Your task to perform on an android device: change keyboard looks Image 0: 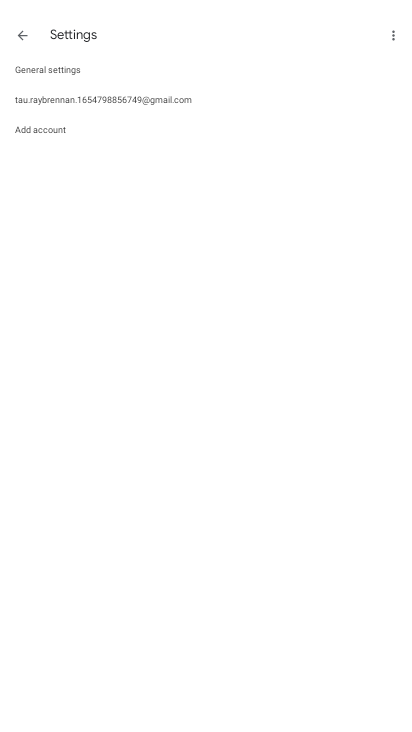
Step 0: press home button
Your task to perform on an android device: change keyboard looks Image 1: 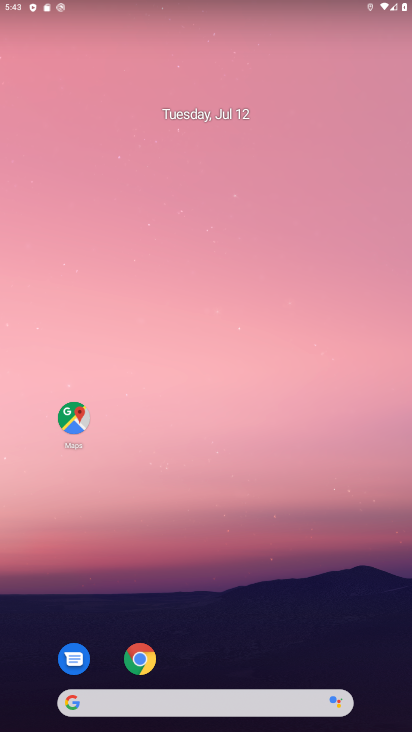
Step 1: drag from (227, 637) to (202, 6)
Your task to perform on an android device: change keyboard looks Image 2: 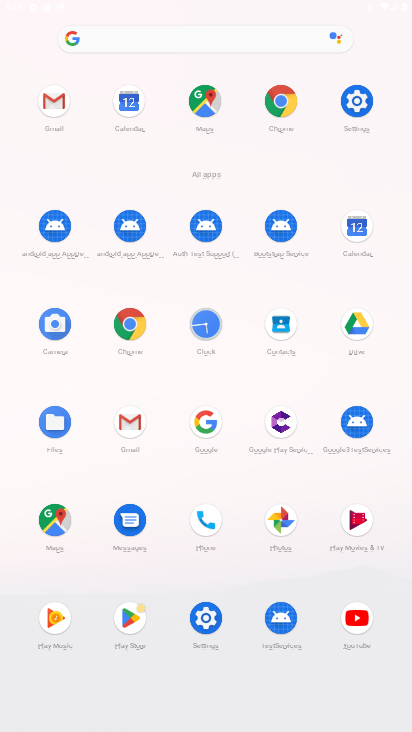
Step 2: click (203, 612)
Your task to perform on an android device: change keyboard looks Image 3: 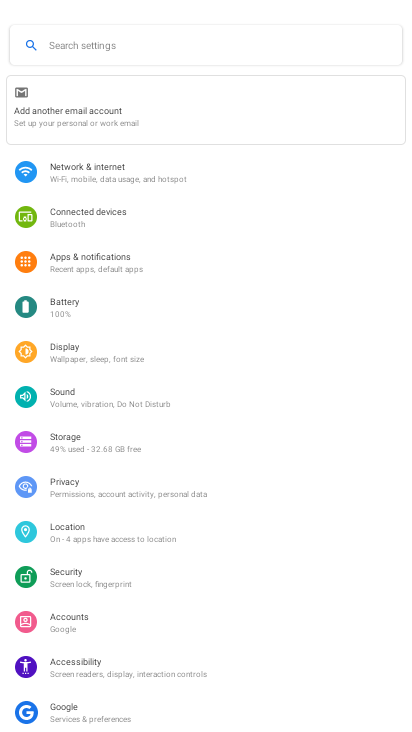
Step 3: drag from (72, 681) to (119, 317)
Your task to perform on an android device: change keyboard looks Image 4: 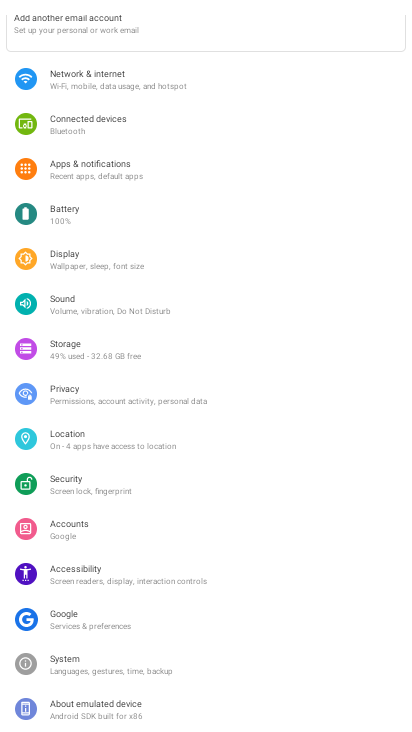
Step 4: click (80, 665)
Your task to perform on an android device: change keyboard looks Image 5: 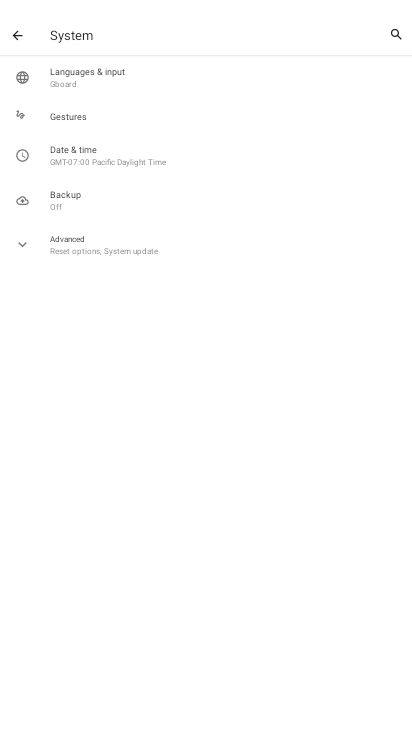
Step 5: click (94, 67)
Your task to perform on an android device: change keyboard looks Image 6: 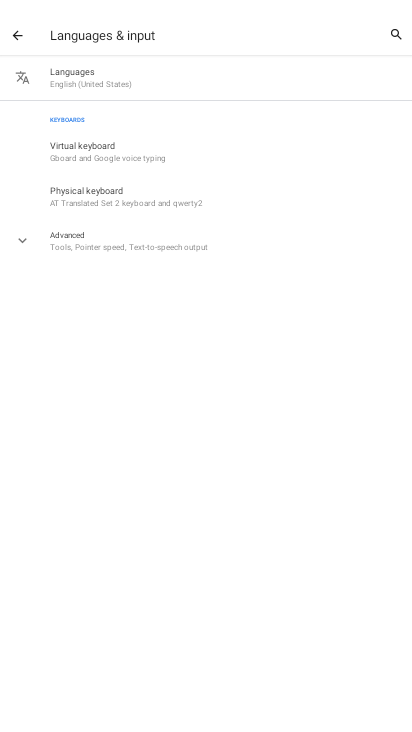
Step 6: click (95, 153)
Your task to perform on an android device: change keyboard looks Image 7: 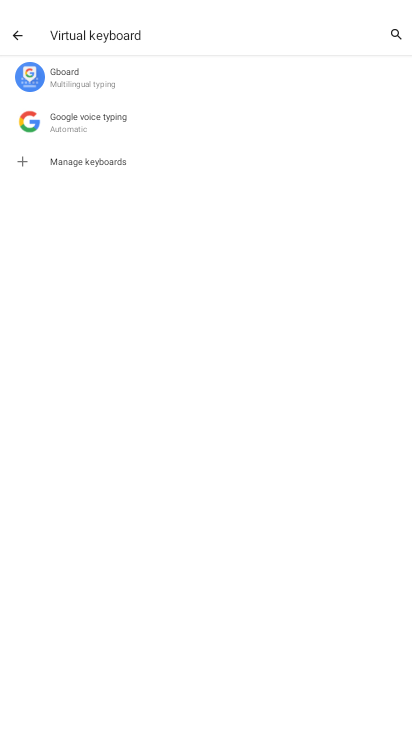
Step 7: click (56, 84)
Your task to perform on an android device: change keyboard looks Image 8: 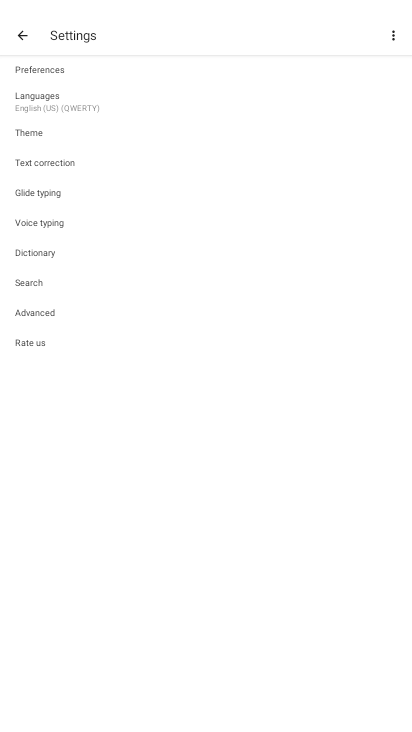
Step 8: click (35, 133)
Your task to perform on an android device: change keyboard looks Image 9: 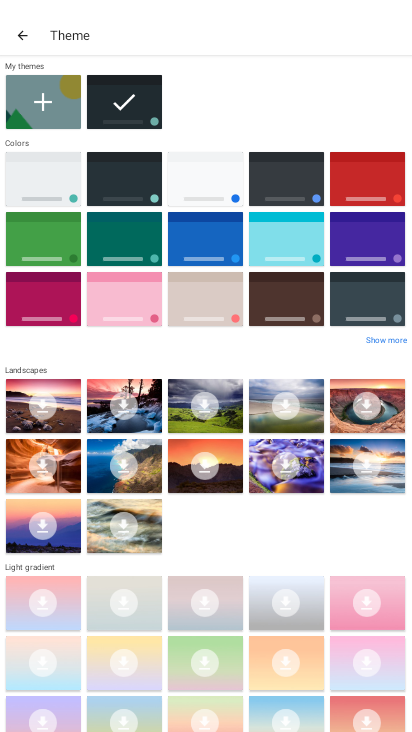
Step 9: click (198, 251)
Your task to perform on an android device: change keyboard looks Image 10: 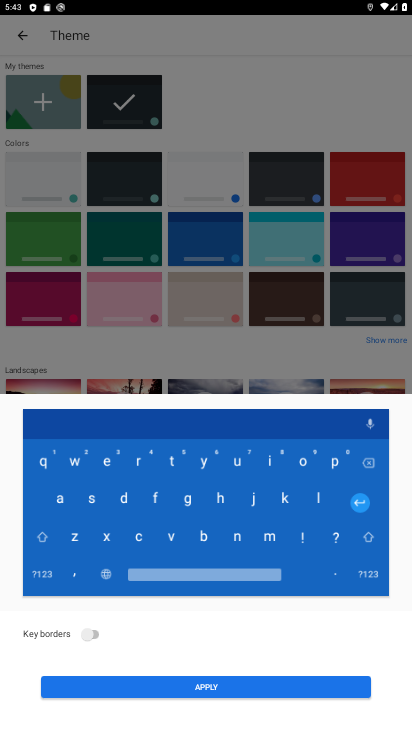
Step 10: click (221, 681)
Your task to perform on an android device: change keyboard looks Image 11: 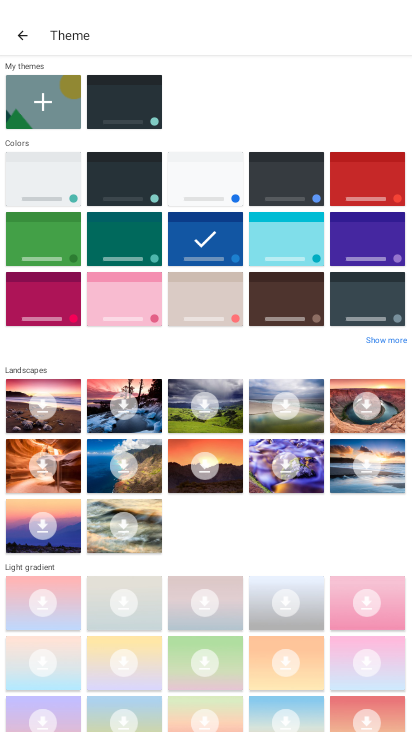
Step 11: task complete